Your task to perform on an android device: toggle location history Image 0: 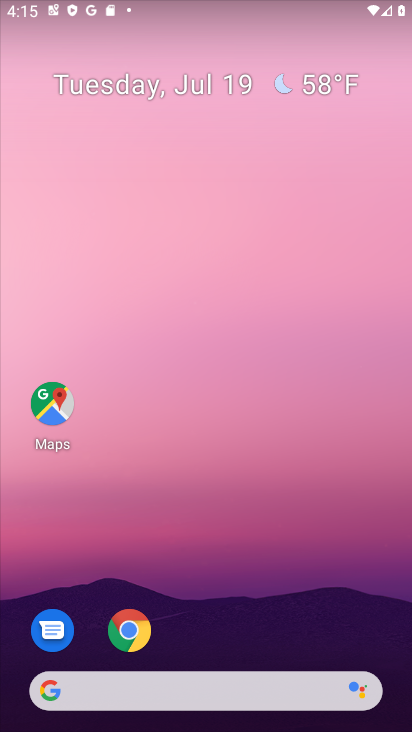
Step 0: press home button
Your task to perform on an android device: toggle location history Image 1: 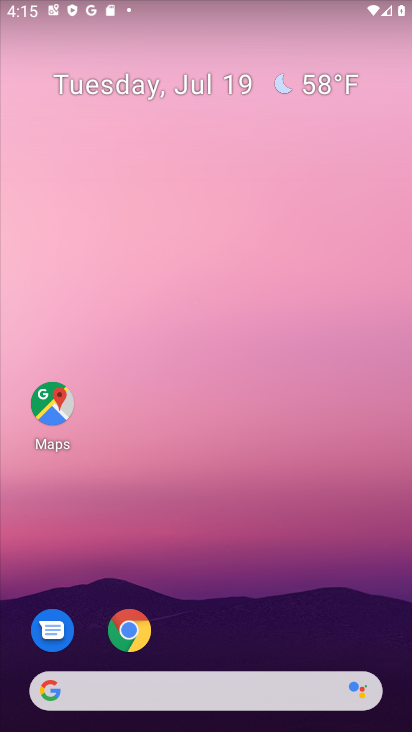
Step 1: drag from (306, 522) to (256, 1)
Your task to perform on an android device: toggle location history Image 2: 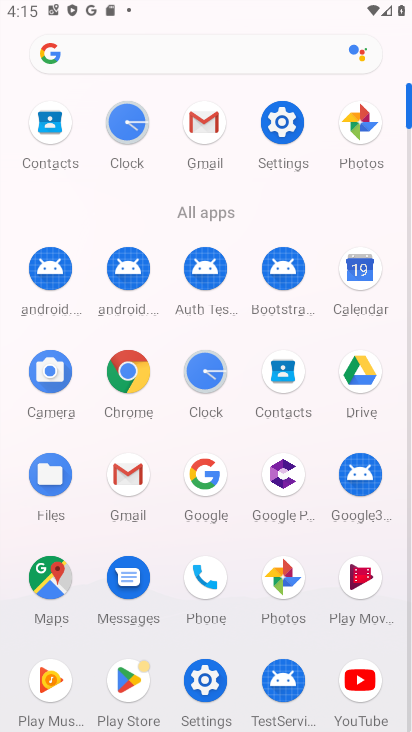
Step 2: click (276, 121)
Your task to perform on an android device: toggle location history Image 3: 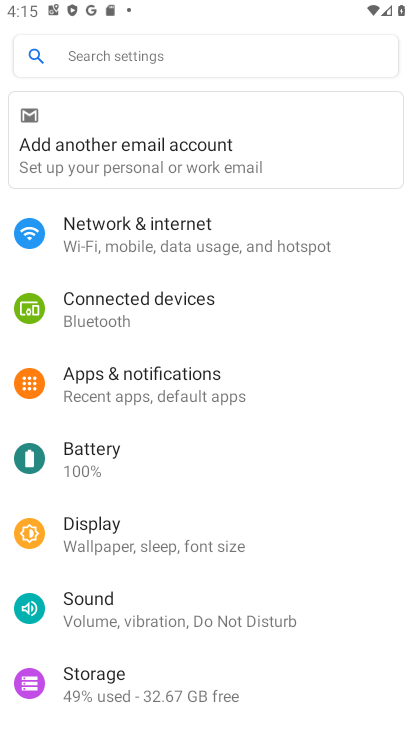
Step 3: drag from (133, 637) to (192, 338)
Your task to perform on an android device: toggle location history Image 4: 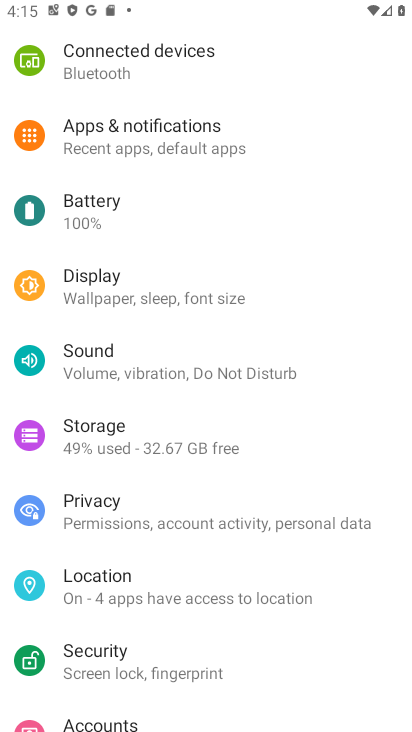
Step 4: click (89, 580)
Your task to perform on an android device: toggle location history Image 5: 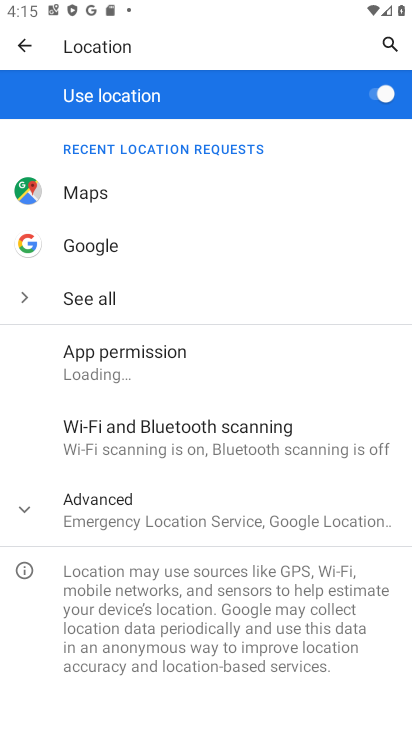
Step 5: click (31, 509)
Your task to perform on an android device: toggle location history Image 6: 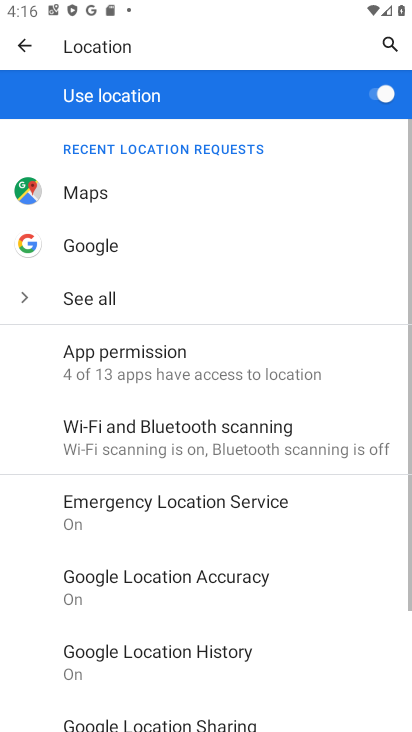
Step 6: click (138, 651)
Your task to perform on an android device: toggle location history Image 7: 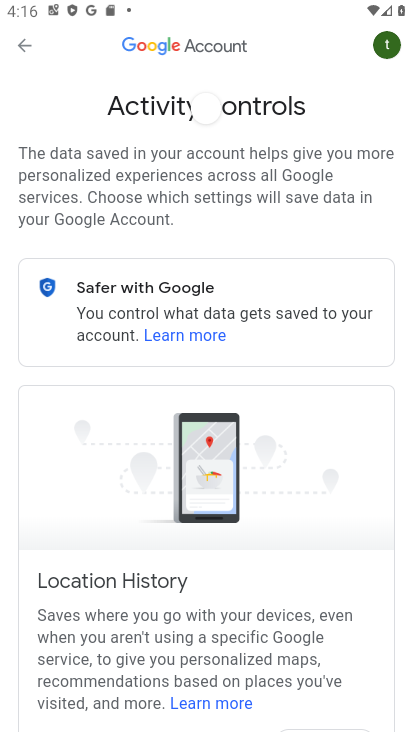
Step 7: drag from (363, 667) to (369, 278)
Your task to perform on an android device: toggle location history Image 8: 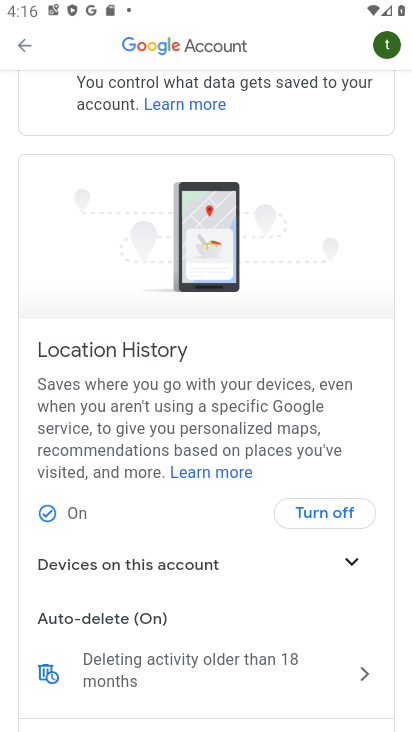
Step 8: click (341, 507)
Your task to perform on an android device: toggle location history Image 9: 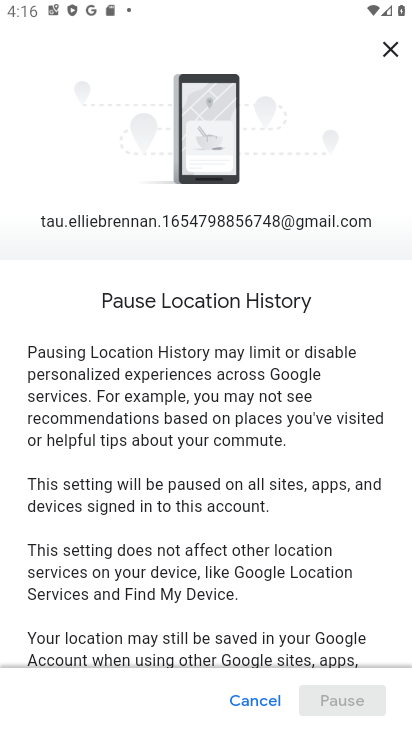
Step 9: drag from (341, 625) to (336, 278)
Your task to perform on an android device: toggle location history Image 10: 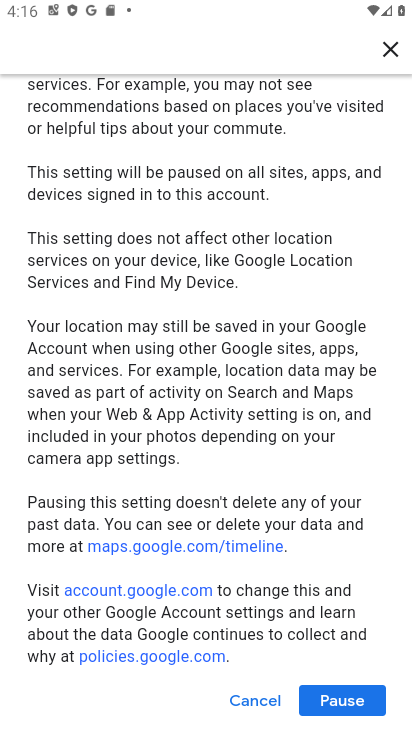
Step 10: click (347, 701)
Your task to perform on an android device: toggle location history Image 11: 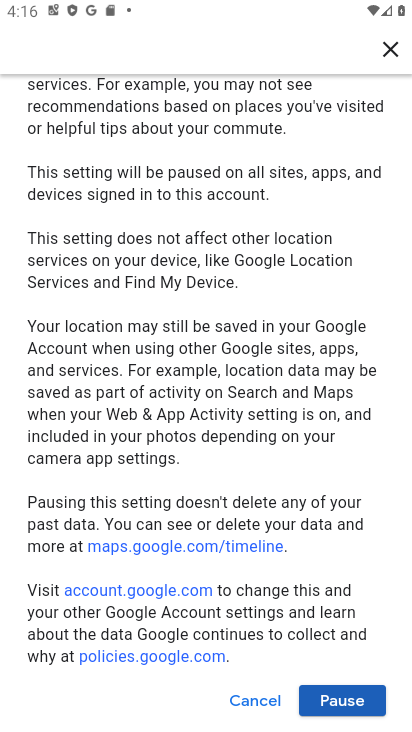
Step 11: click (351, 695)
Your task to perform on an android device: toggle location history Image 12: 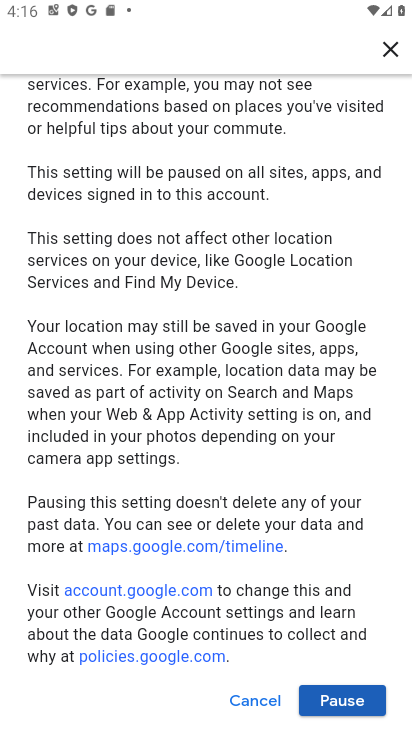
Step 12: drag from (345, 604) to (380, 360)
Your task to perform on an android device: toggle location history Image 13: 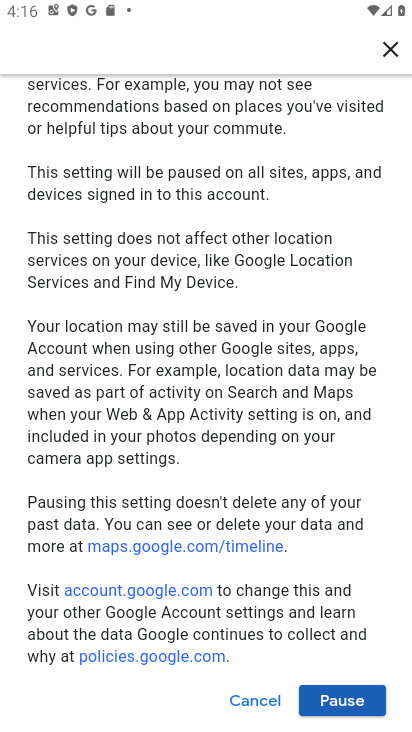
Step 13: click (337, 702)
Your task to perform on an android device: toggle location history Image 14: 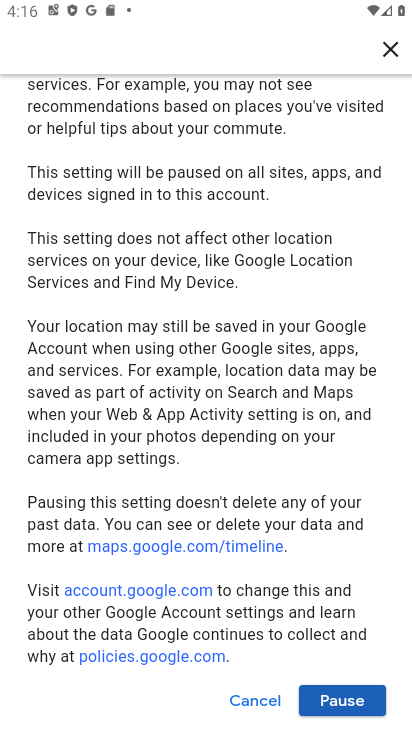
Step 14: click (356, 702)
Your task to perform on an android device: toggle location history Image 15: 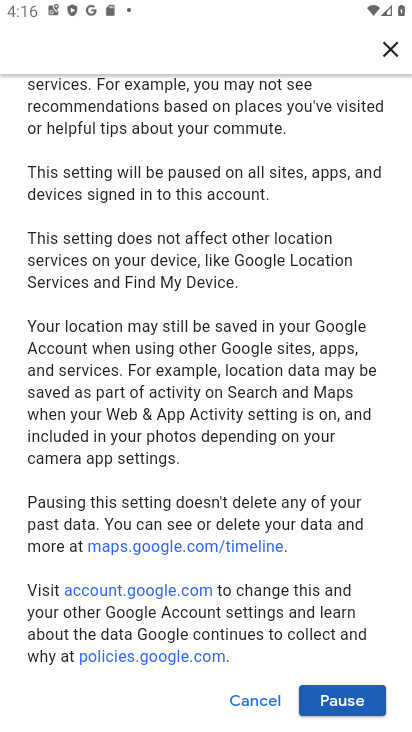
Step 15: click (360, 698)
Your task to perform on an android device: toggle location history Image 16: 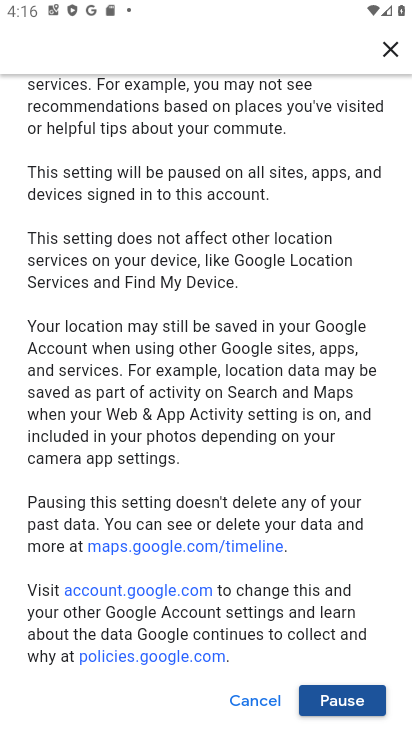
Step 16: task complete